Your task to perform on an android device: Add razer nari to the cart on bestbuy, then select checkout. Image 0: 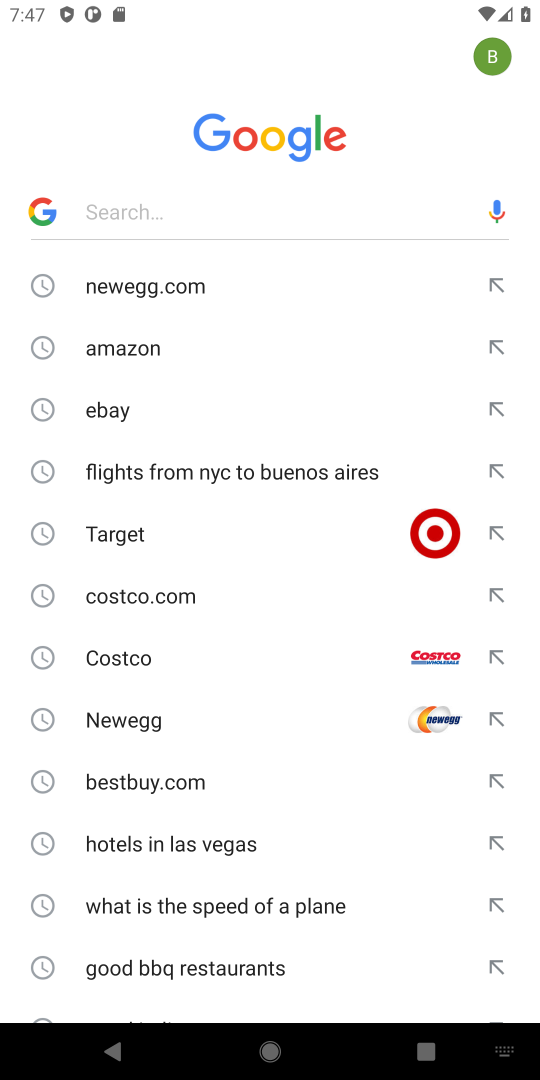
Step 0: press home button
Your task to perform on an android device: Add razer nari to the cart on bestbuy, then select checkout. Image 1: 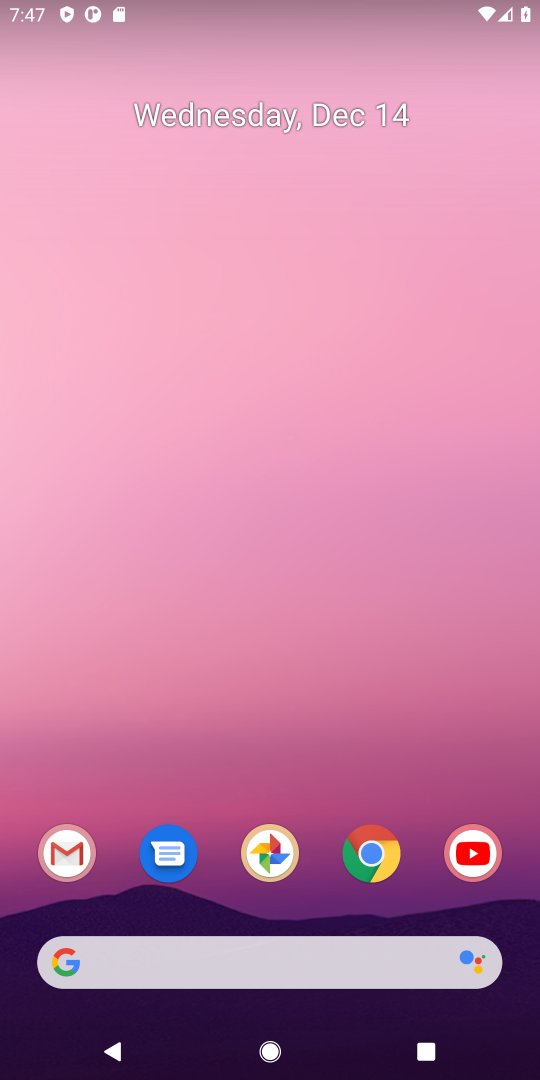
Step 1: click (369, 860)
Your task to perform on an android device: Add razer nari to the cart on bestbuy, then select checkout. Image 2: 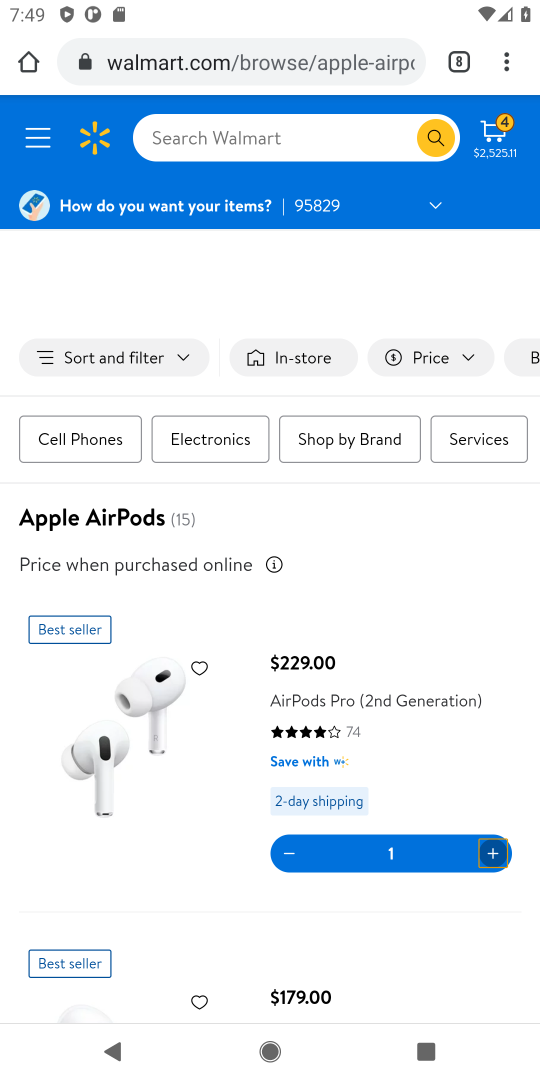
Step 2: click (464, 61)
Your task to perform on an android device: Add razer nari to the cart on bestbuy, then select checkout. Image 3: 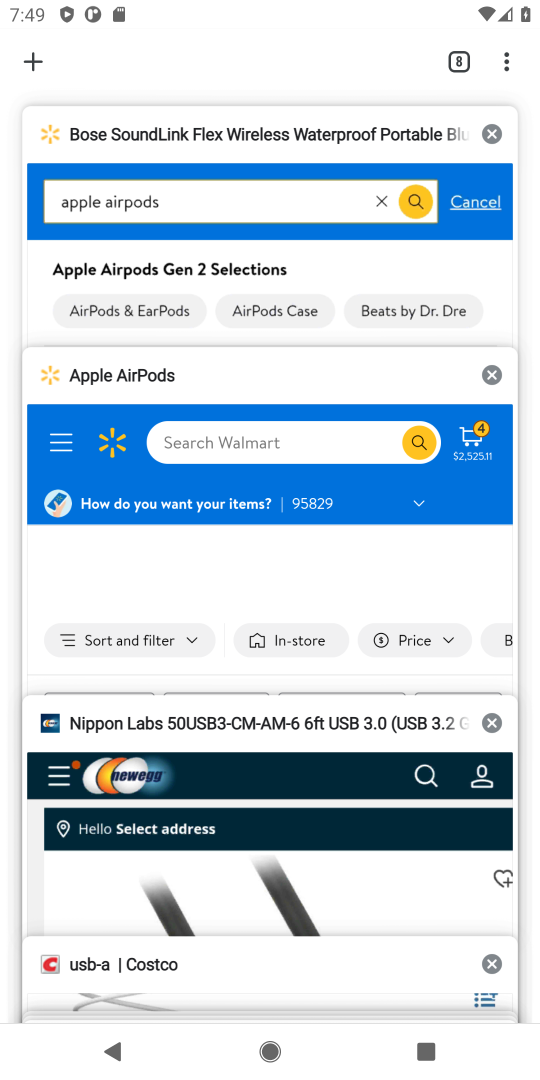
Step 3: click (490, 370)
Your task to perform on an android device: Add razer nari to the cart on bestbuy, then select checkout. Image 4: 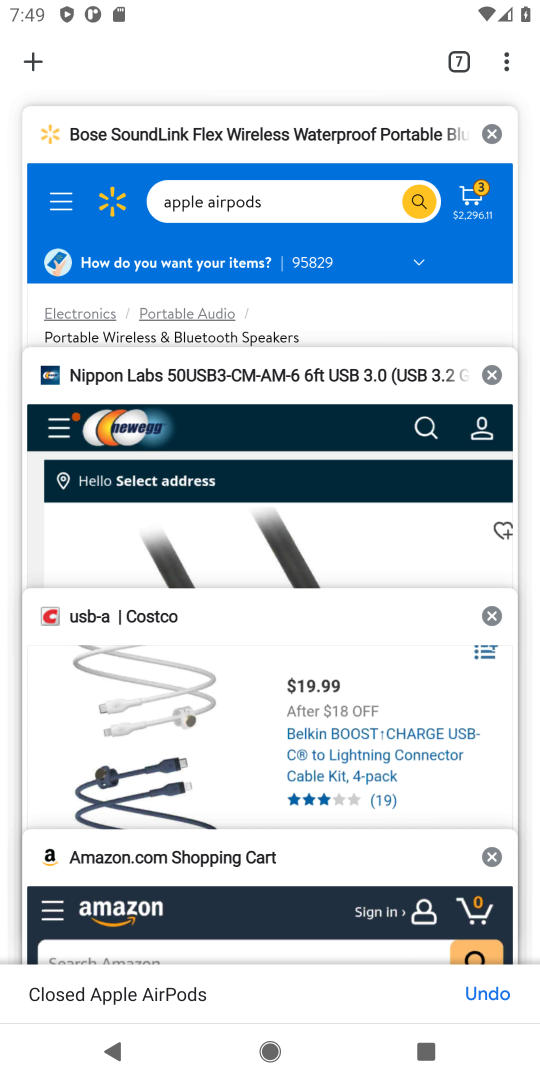
Step 4: drag from (288, 948) to (407, 394)
Your task to perform on an android device: Add razer nari to the cart on bestbuy, then select checkout. Image 5: 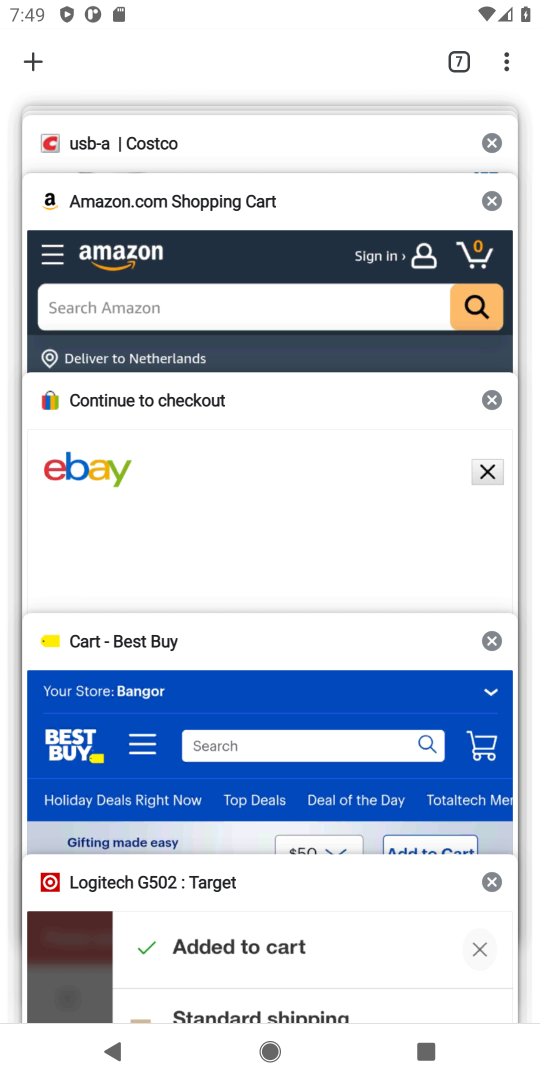
Step 5: click (311, 715)
Your task to perform on an android device: Add razer nari to the cart on bestbuy, then select checkout. Image 6: 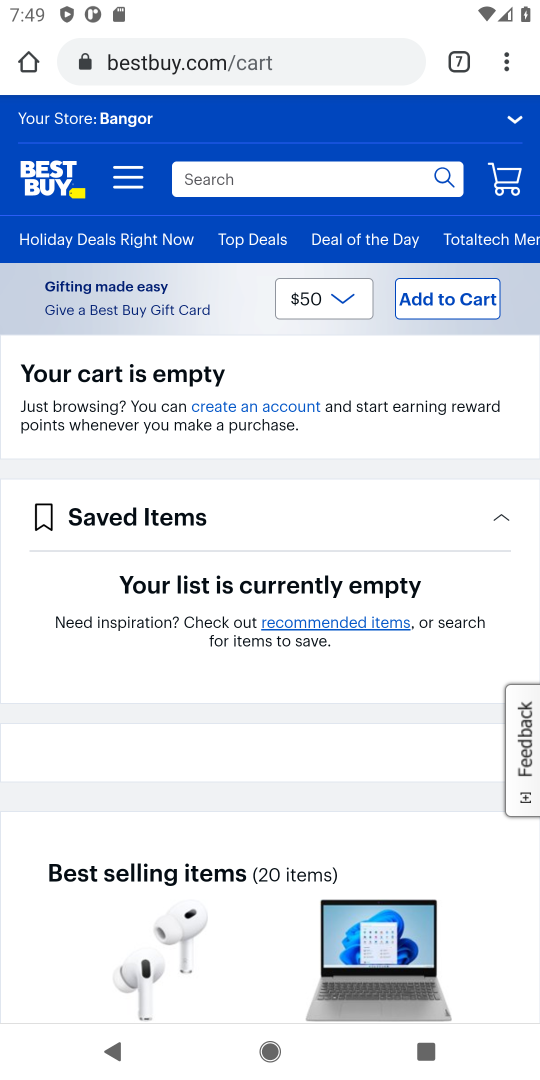
Step 6: click (244, 174)
Your task to perform on an android device: Add razer nari to the cart on bestbuy, then select checkout. Image 7: 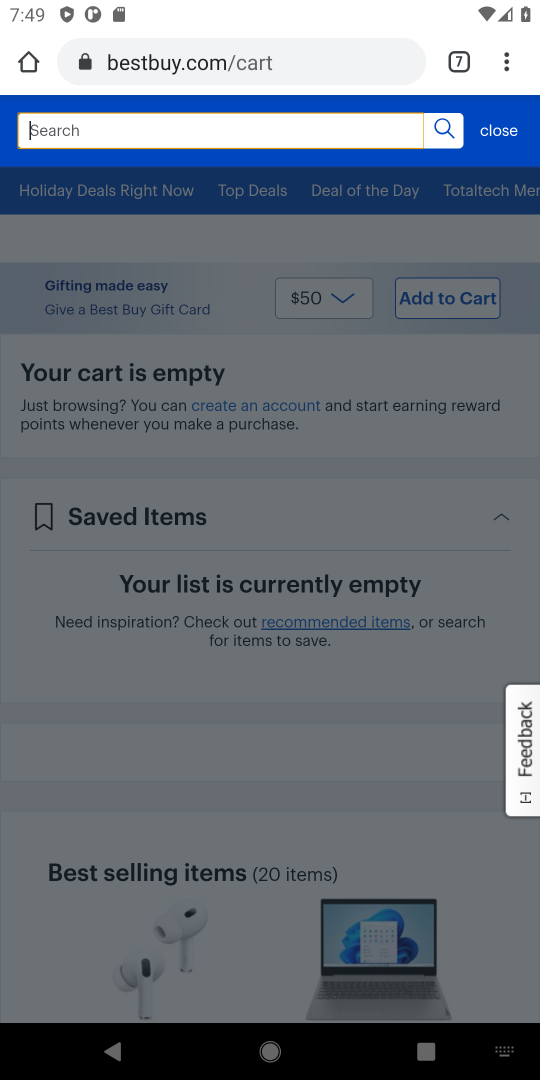
Step 7: type "razer nari "
Your task to perform on an android device: Add razer nari to the cart on bestbuy, then select checkout. Image 8: 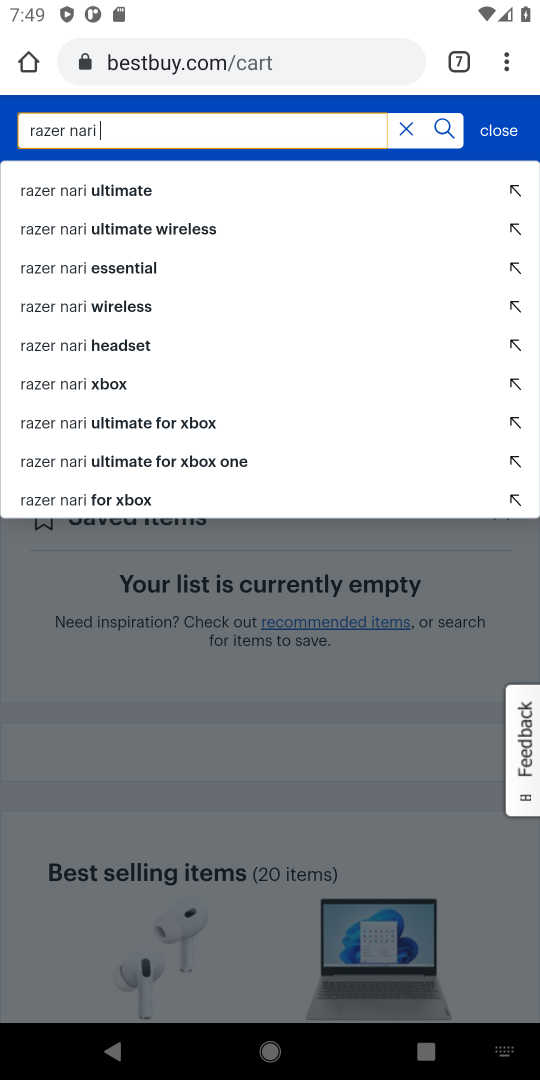
Step 8: click (444, 122)
Your task to perform on an android device: Add razer nari to the cart on bestbuy, then select checkout. Image 9: 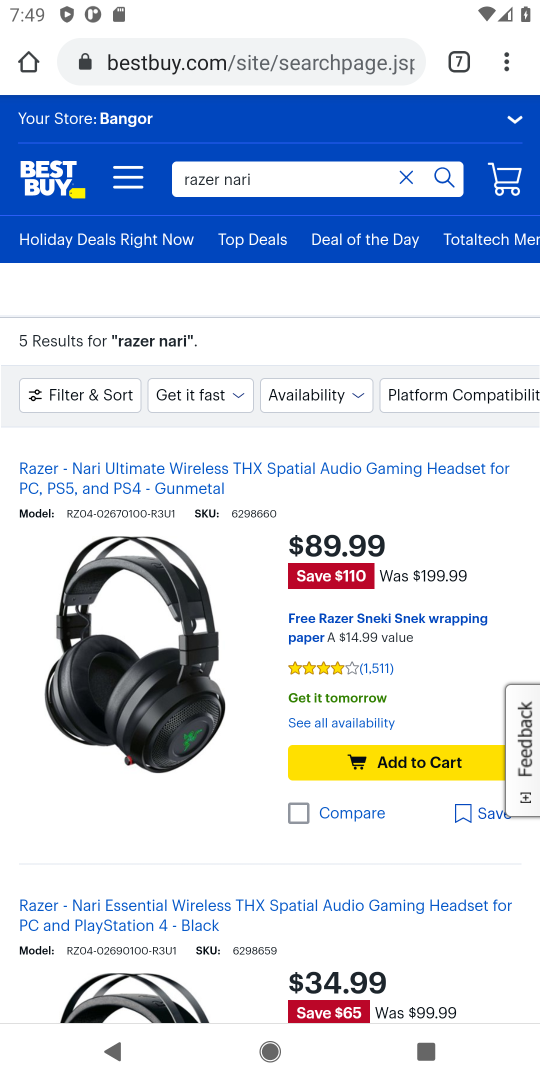
Step 9: click (419, 707)
Your task to perform on an android device: Add razer nari to the cart on bestbuy, then select checkout. Image 10: 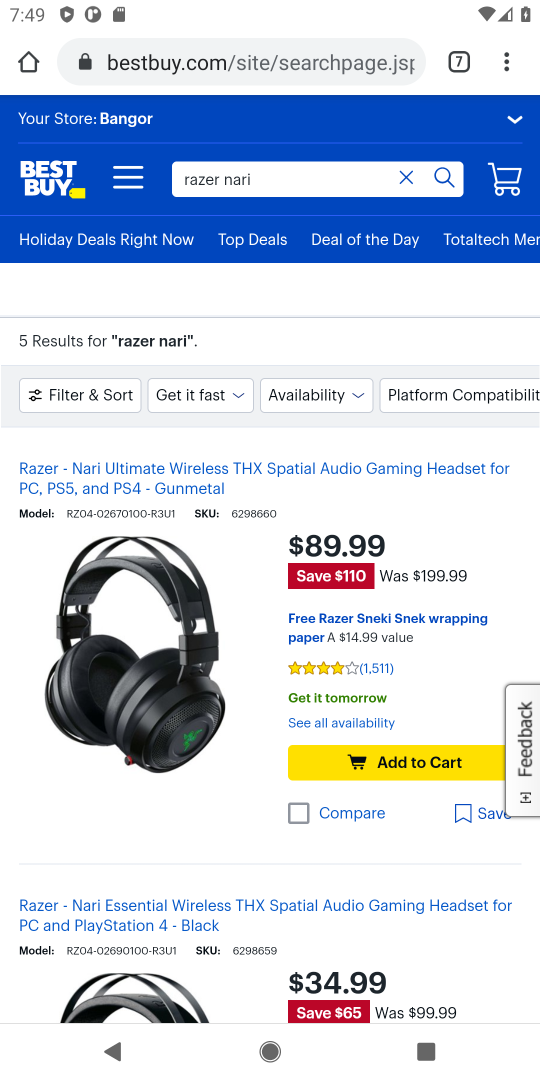
Step 10: click (414, 764)
Your task to perform on an android device: Add razer nari to the cart on bestbuy, then select checkout. Image 11: 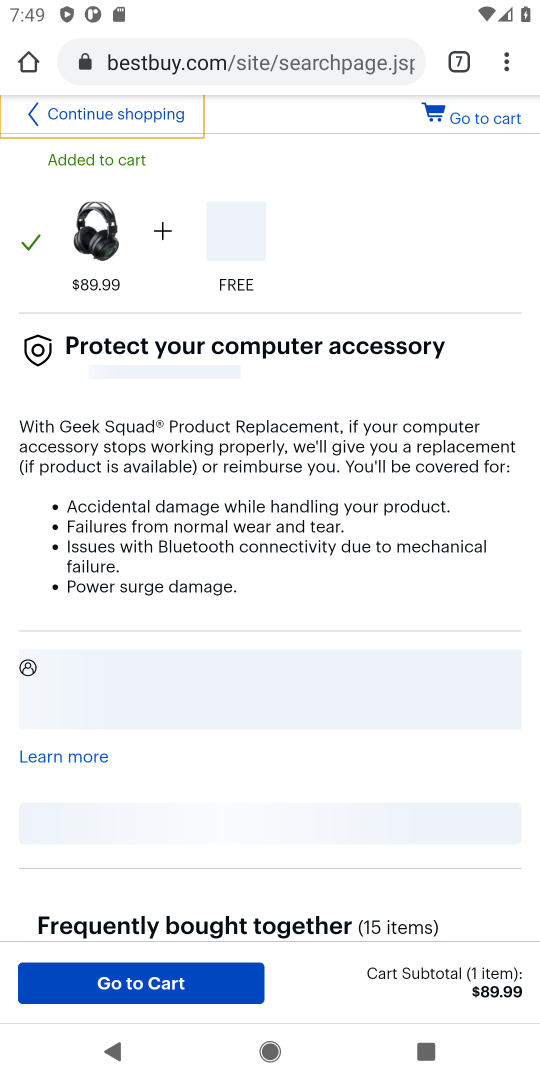
Step 11: task complete